Your task to perform on an android device: check google app version Image 0: 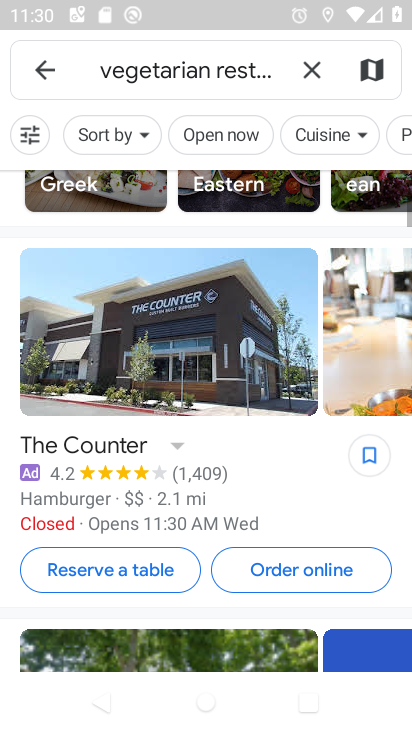
Step 0: press home button
Your task to perform on an android device: check google app version Image 1: 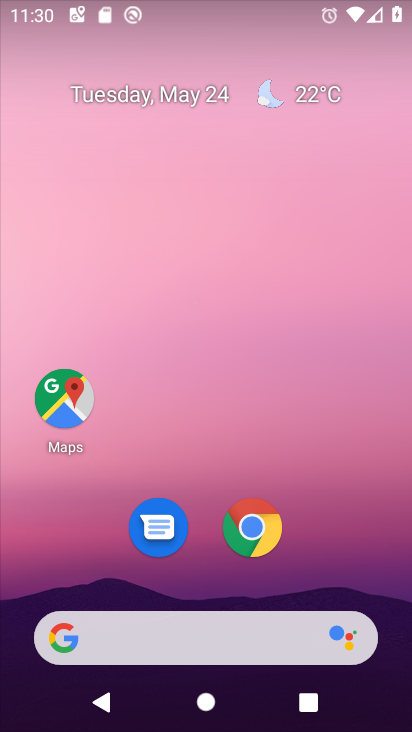
Step 1: drag from (190, 648) to (356, 95)
Your task to perform on an android device: check google app version Image 2: 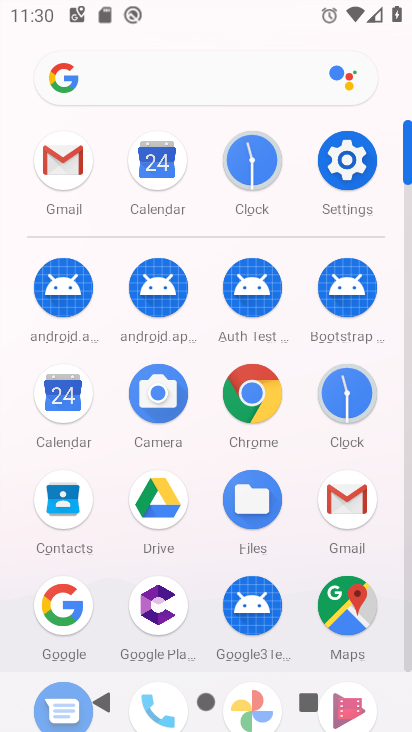
Step 2: drag from (79, 610) to (254, 374)
Your task to perform on an android device: check google app version Image 3: 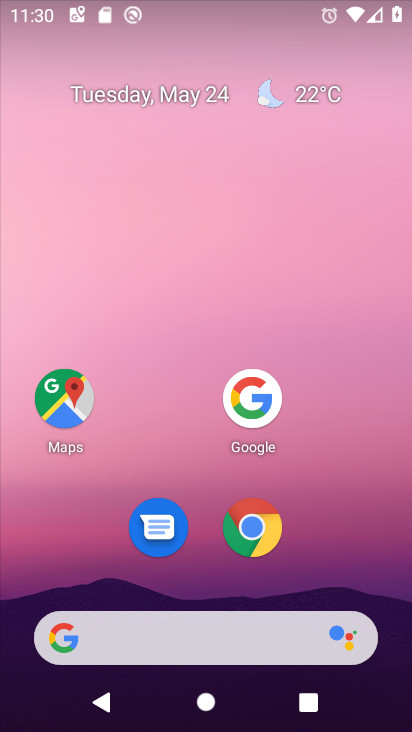
Step 3: click (253, 404)
Your task to perform on an android device: check google app version Image 4: 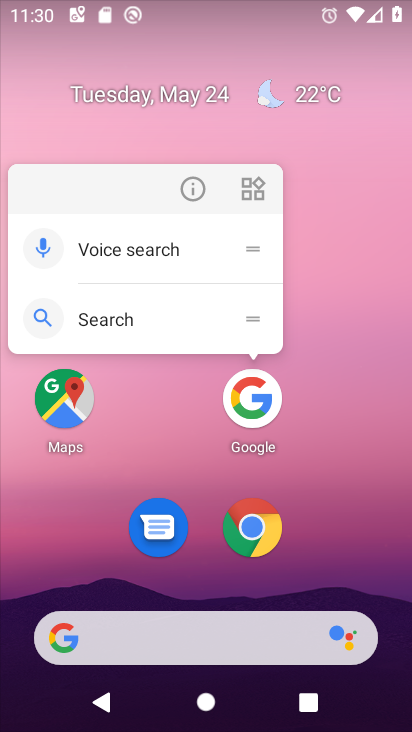
Step 4: click (187, 186)
Your task to perform on an android device: check google app version Image 5: 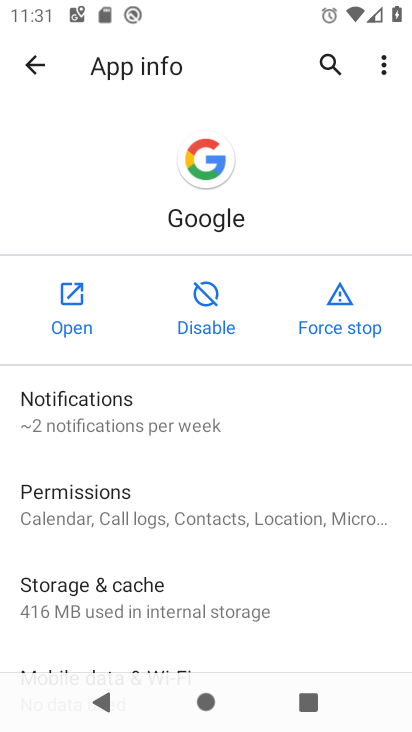
Step 5: drag from (201, 640) to (325, 96)
Your task to perform on an android device: check google app version Image 6: 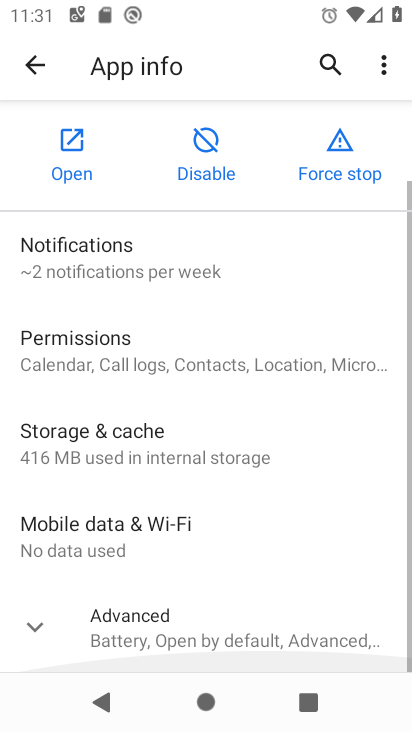
Step 6: click (97, 627)
Your task to perform on an android device: check google app version Image 7: 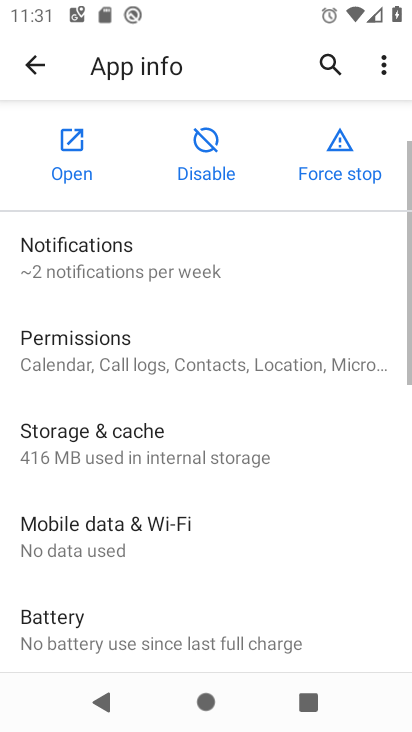
Step 7: task complete